Your task to perform on an android device: Open ESPN.com Image 0: 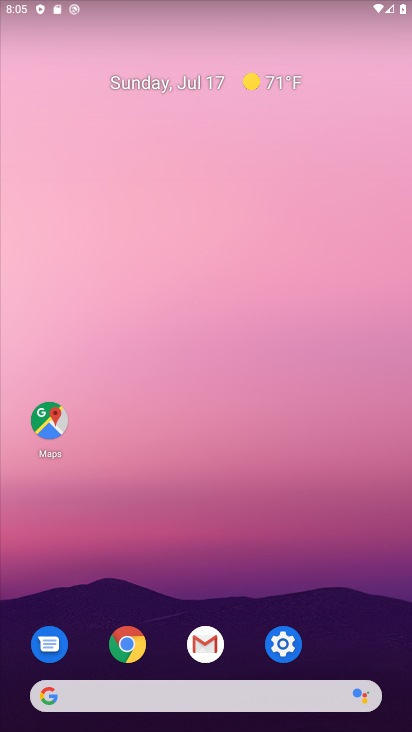
Step 0: click (130, 646)
Your task to perform on an android device: Open ESPN.com Image 1: 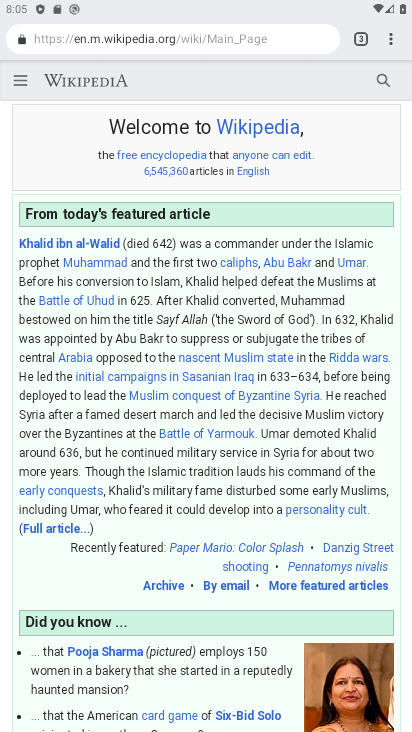
Step 1: click (372, 29)
Your task to perform on an android device: Open ESPN.com Image 2: 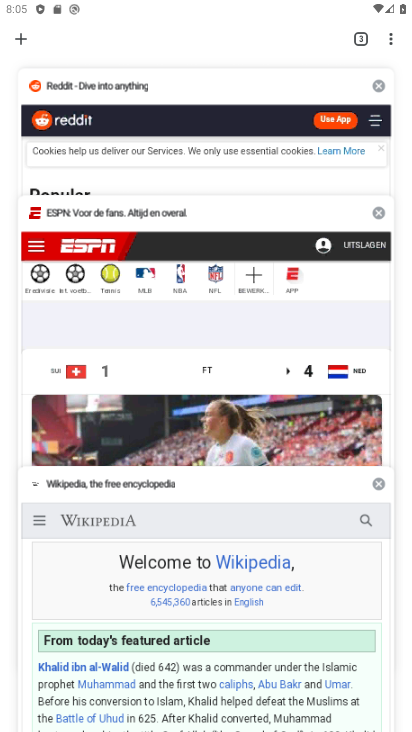
Step 2: click (22, 50)
Your task to perform on an android device: Open ESPN.com Image 3: 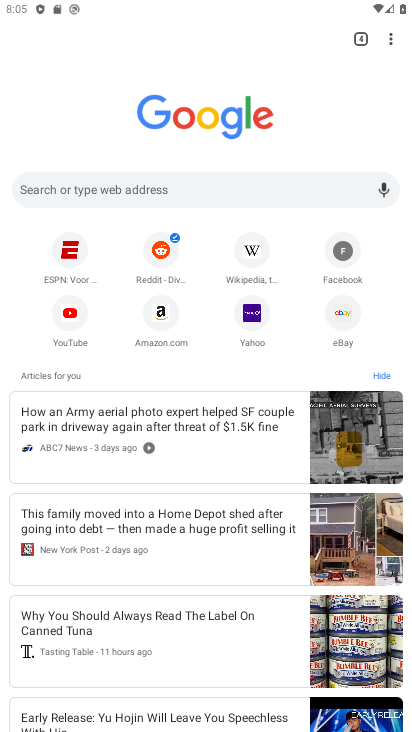
Step 3: click (76, 248)
Your task to perform on an android device: Open ESPN.com Image 4: 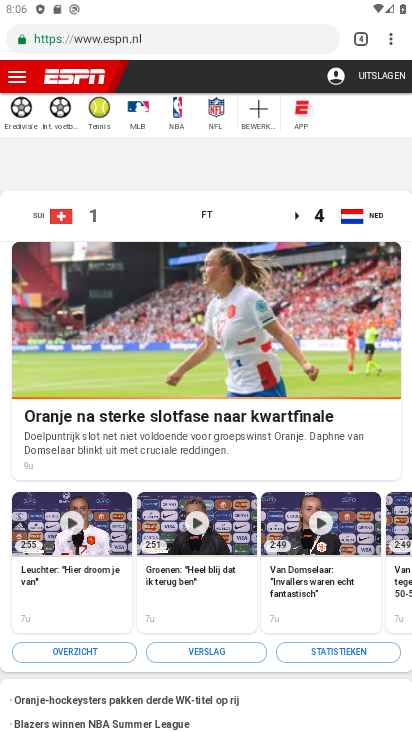
Step 4: task complete